Your task to perform on an android device: Go to Google maps Image 0: 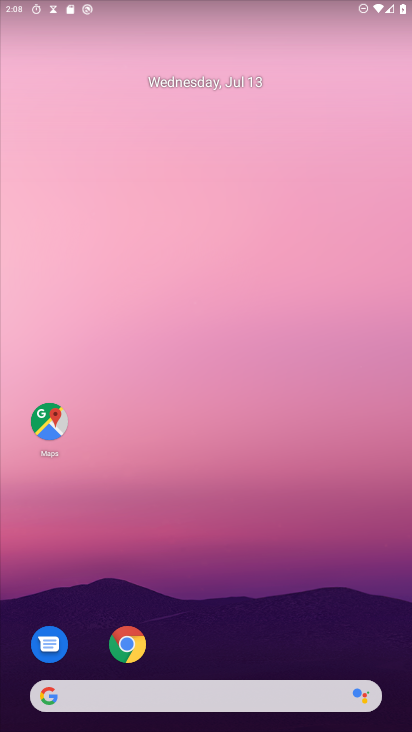
Step 0: press home button
Your task to perform on an android device: Go to Google maps Image 1: 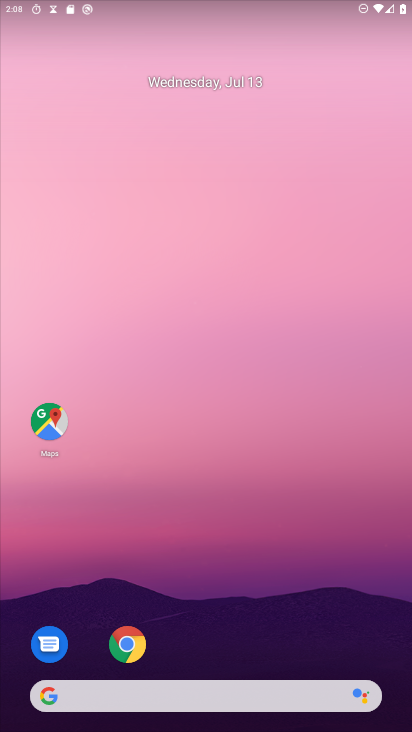
Step 1: press home button
Your task to perform on an android device: Go to Google maps Image 2: 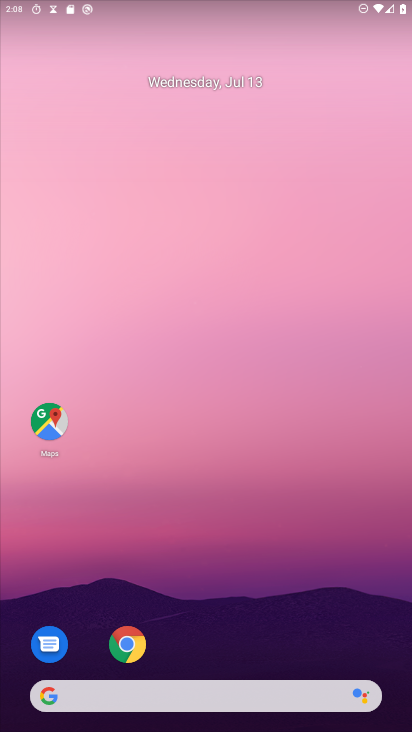
Step 2: press home button
Your task to perform on an android device: Go to Google maps Image 3: 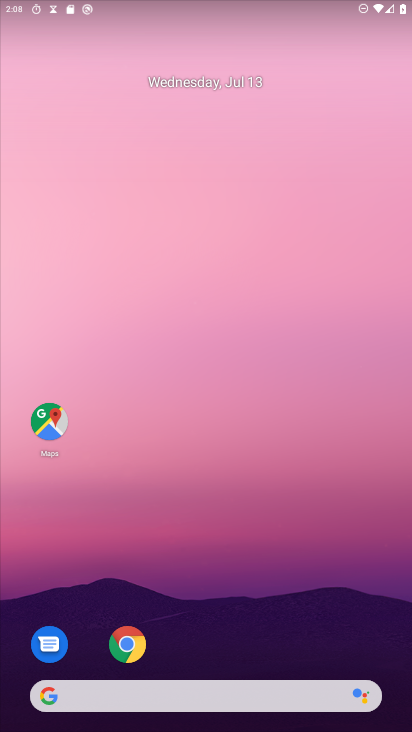
Step 3: click (37, 423)
Your task to perform on an android device: Go to Google maps Image 4: 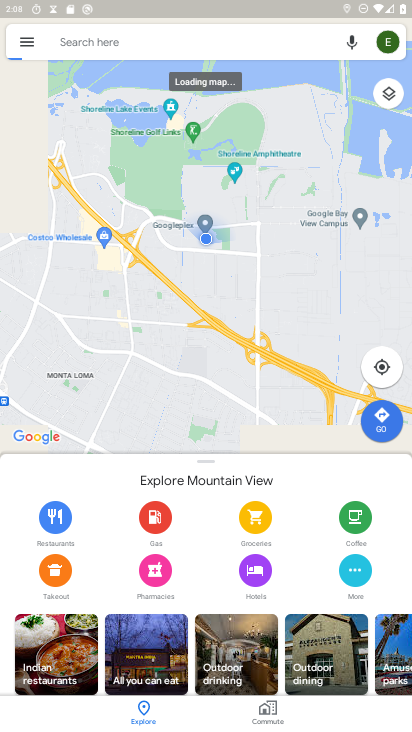
Step 4: task complete